Your task to perform on an android device: set the stopwatch Image 0: 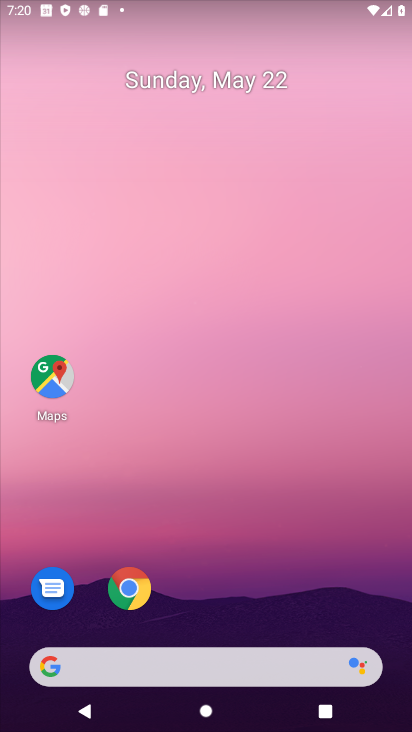
Step 0: drag from (260, 538) to (175, 141)
Your task to perform on an android device: set the stopwatch Image 1: 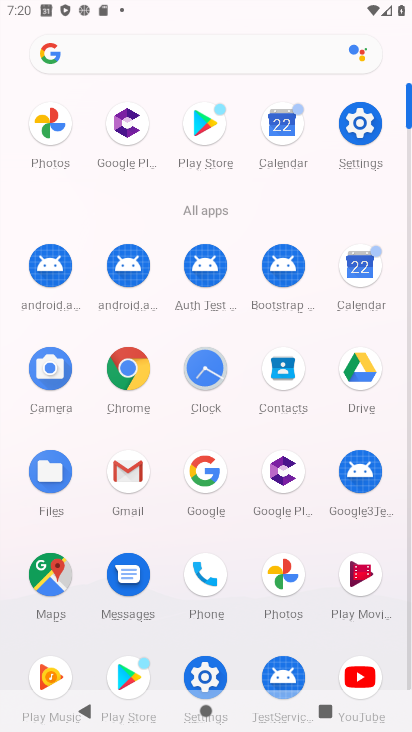
Step 1: click (210, 377)
Your task to perform on an android device: set the stopwatch Image 2: 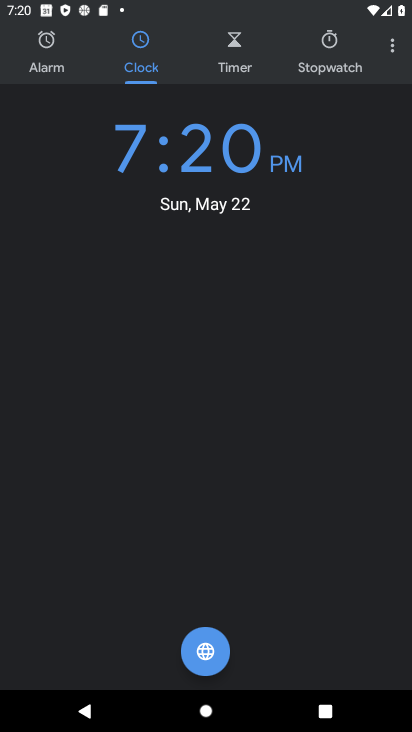
Step 2: click (322, 54)
Your task to perform on an android device: set the stopwatch Image 3: 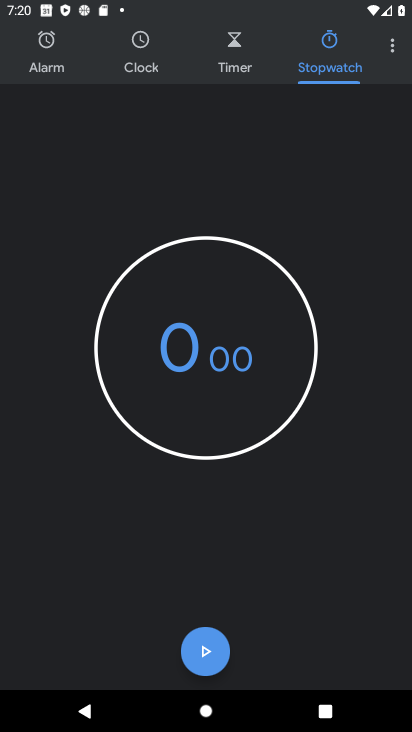
Step 3: task complete